Your task to perform on an android device: turn smart compose on in the gmail app Image 0: 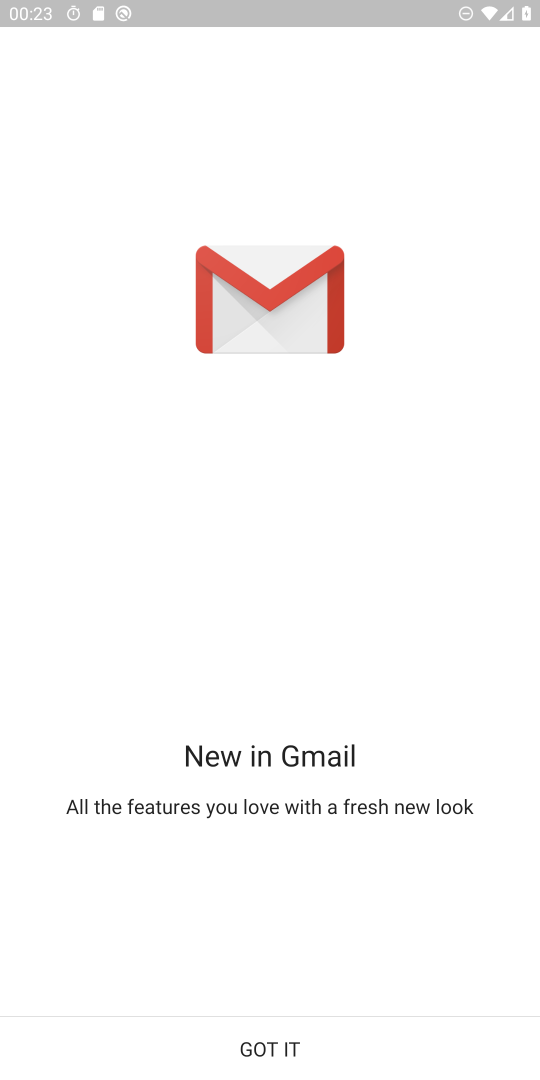
Step 0: click (319, 1057)
Your task to perform on an android device: turn smart compose on in the gmail app Image 1: 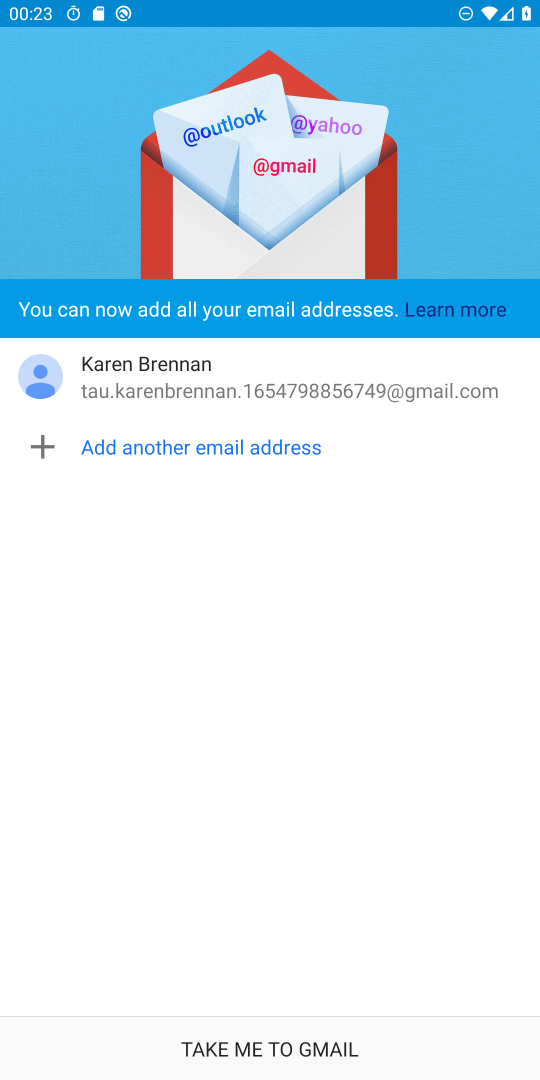
Step 1: click (319, 1057)
Your task to perform on an android device: turn smart compose on in the gmail app Image 2: 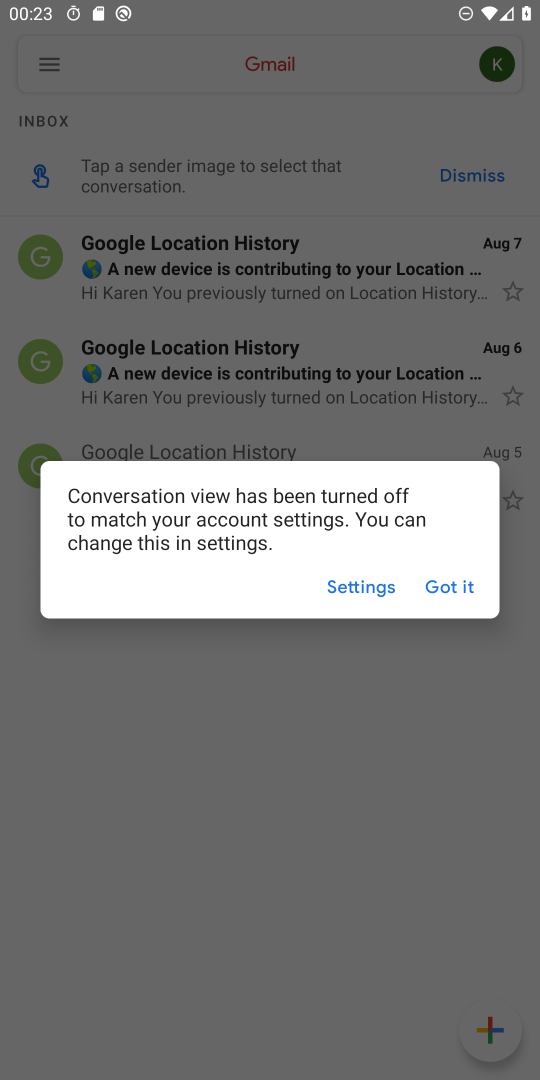
Step 2: click (436, 599)
Your task to perform on an android device: turn smart compose on in the gmail app Image 3: 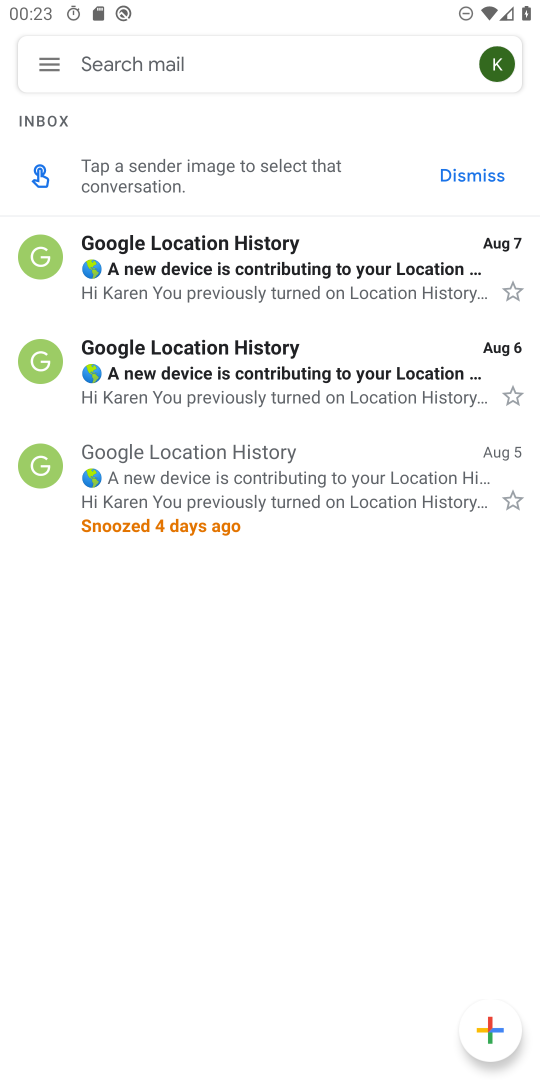
Step 3: click (43, 61)
Your task to perform on an android device: turn smart compose on in the gmail app Image 4: 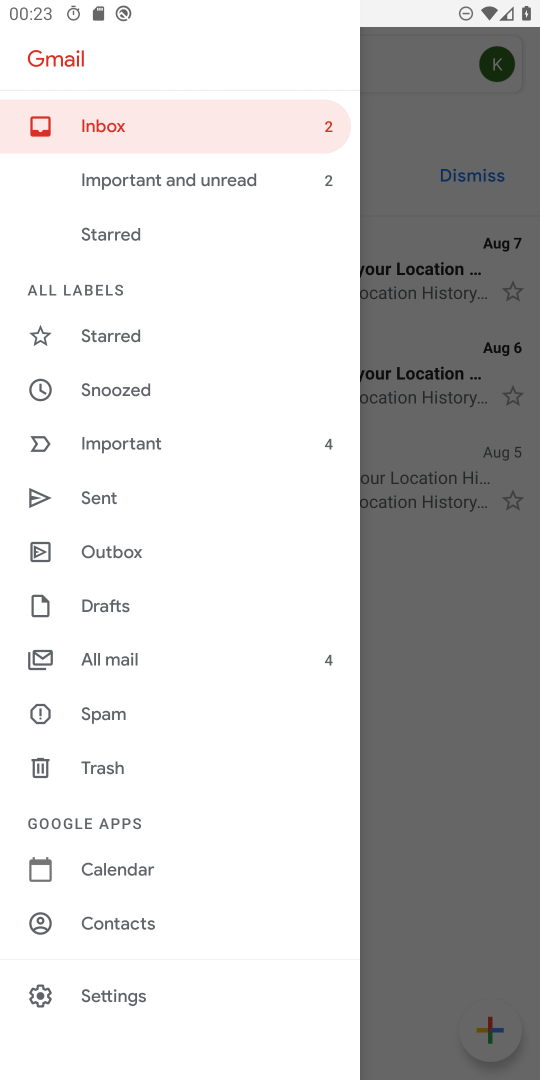
Step 4: click (132, 997)
Your task to perform on an android device: turn smart compose on in the gmail app Image 5: 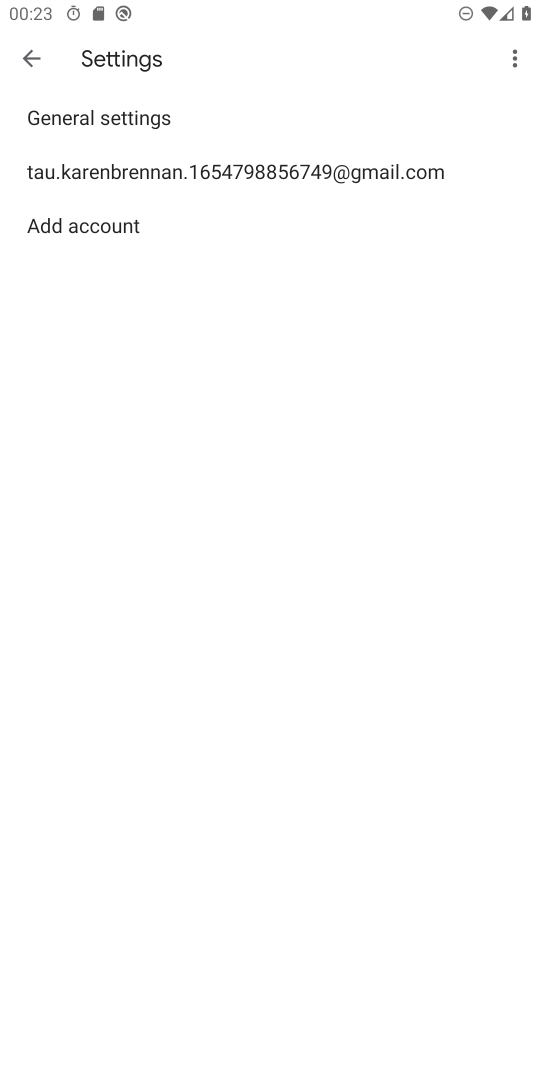
Step 5: click (244, 195)
Your task to perform on an android device: turn smart compose on in the gmail app Image 6: 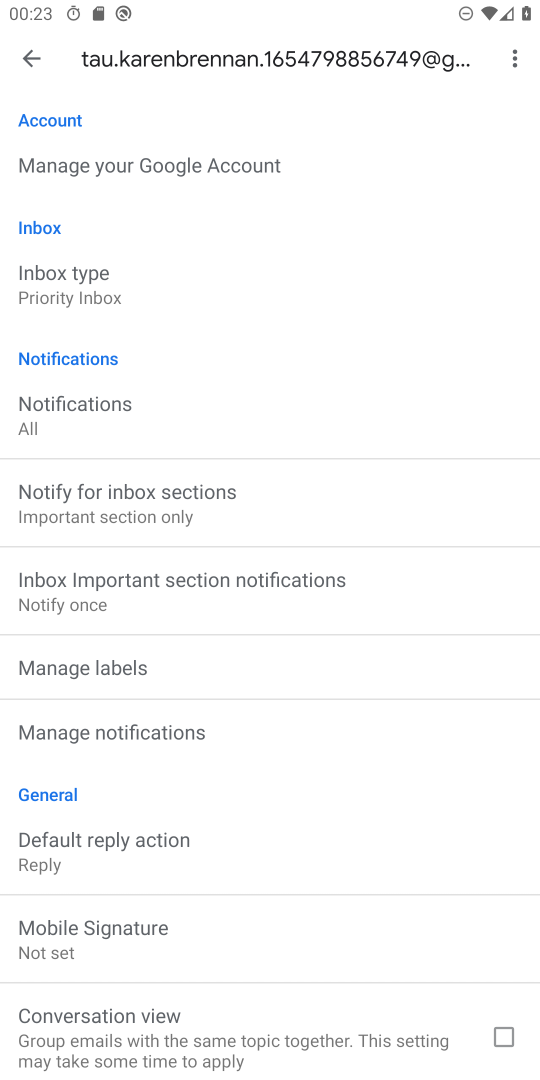
Step 6: task complete